Your task to perform on an android device: turn off wifi Image 0: 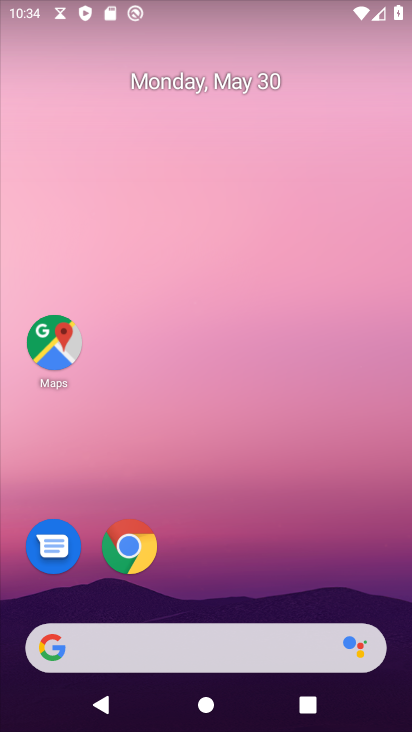
Step 0: drag from (229, 590) to (12, 102)
Your task to perform on an android device: turn off wifi Image 1: 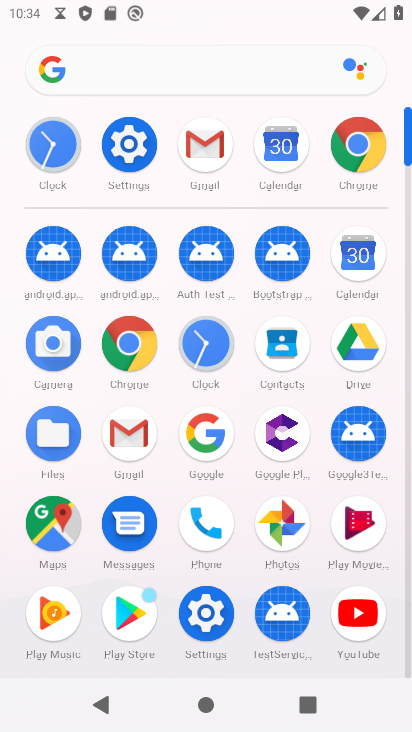
Step 1: click (126, 139)
Your task to perform on an android device: turn off wifi Image 2: 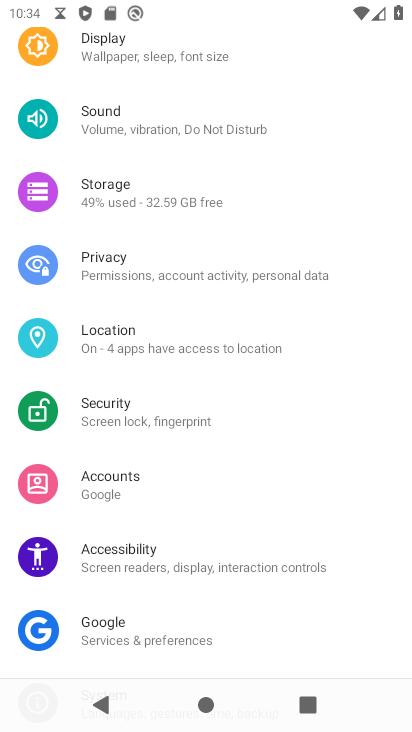
Step 2: drag from (150, 87) to (191, 619)
Your task to perform on an android device: turn off wifi Image 3: 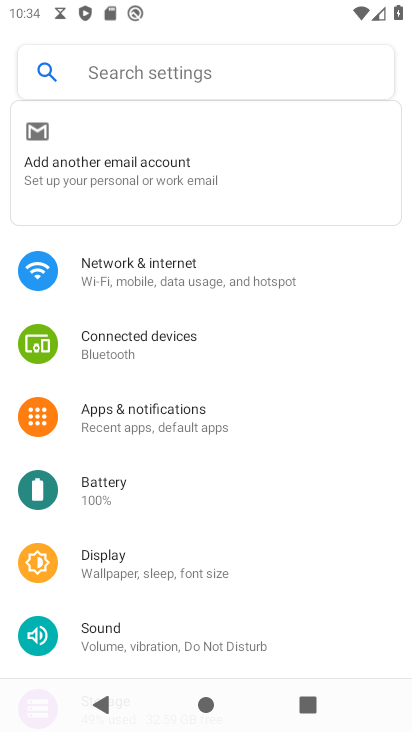
Step 3: click (209, 262)
Your task to perform on an android device: turn off wifi Image 4: 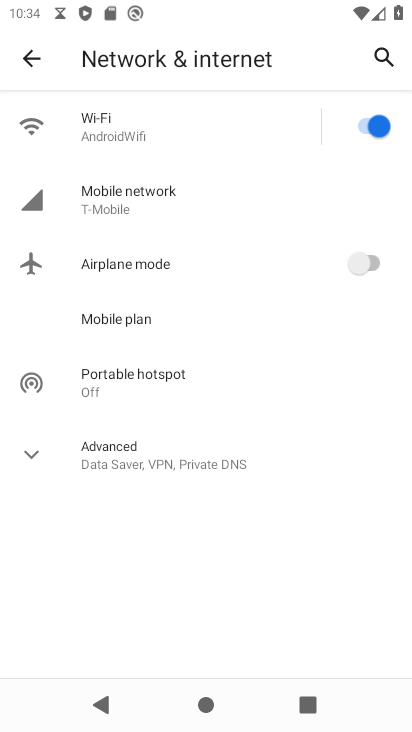
Step 4: click (365, 120)
Your task to perform on an android device: turn off wifi Image 5: 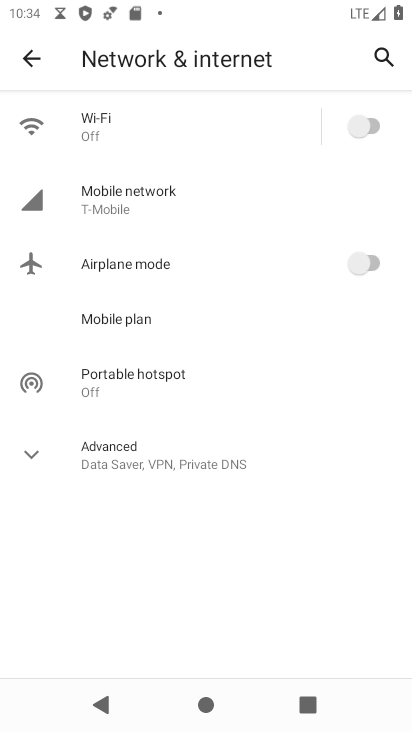
Step 5: task complete